Your task to perform on an android device: see tabs open on other devices in the chrome app Image 0: 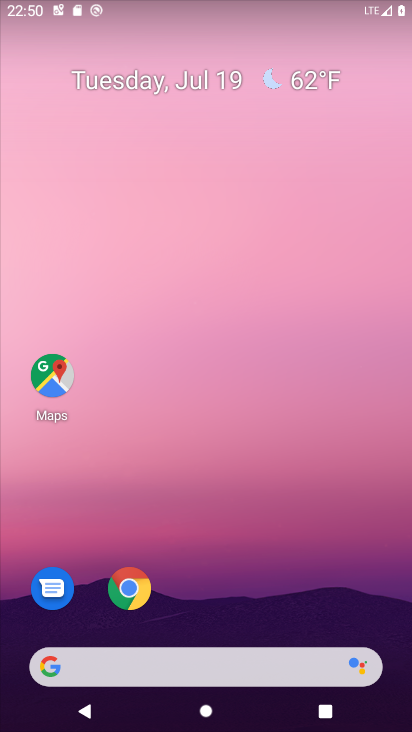
Step 0: click (133, 586)
Your task to perform on an android device: see tabs open on other devices in the chrome app Image 1: 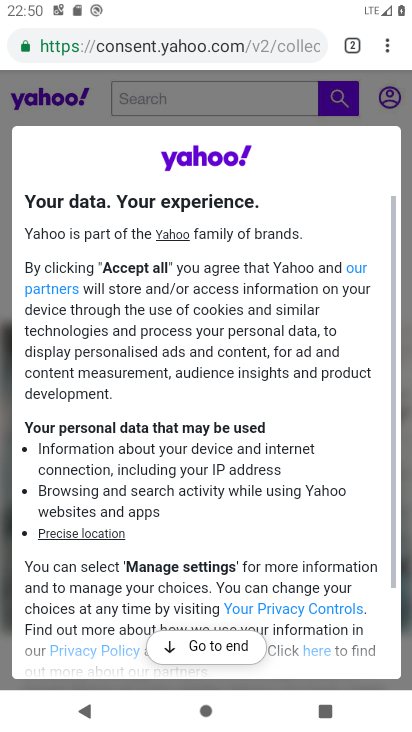
Step 1: click (389, 45)
Your task to perform on an android device: see tabs open on other devices in the chrome app Image 2: 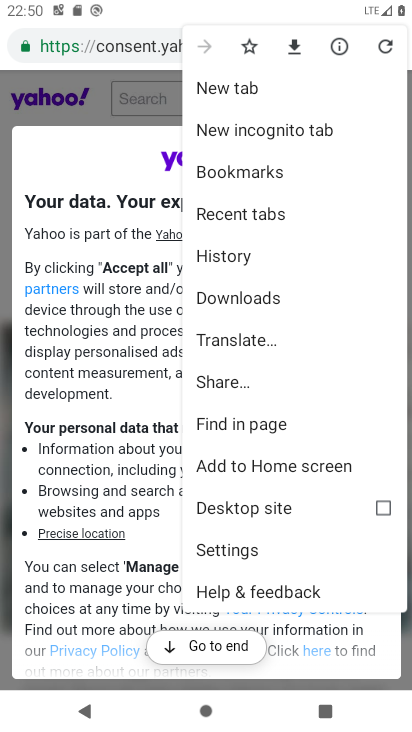
Step 2: click (276, 213)
Your task to perform on an android device: see tabs open on other devices in the chrome app Image 3: 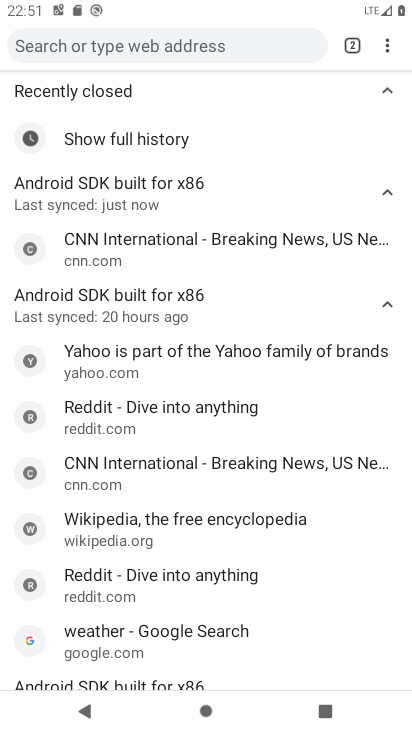
Step 3: task complete